Your task to perform on an android device: When is my next meeting? Image 0: 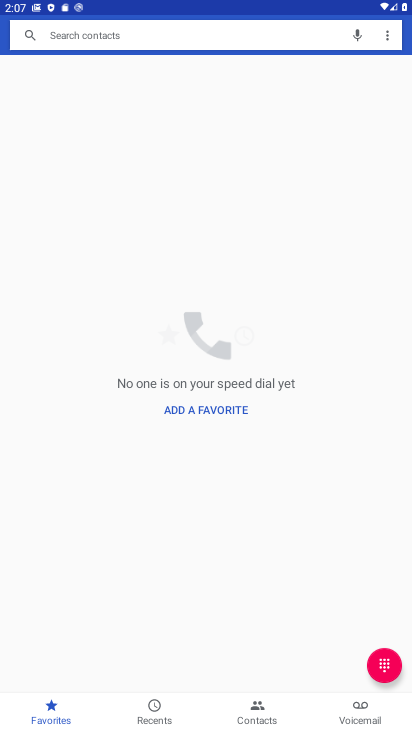
Step 0: press home button
Your task to perform on an android device: When is my next meeting? Image 1: 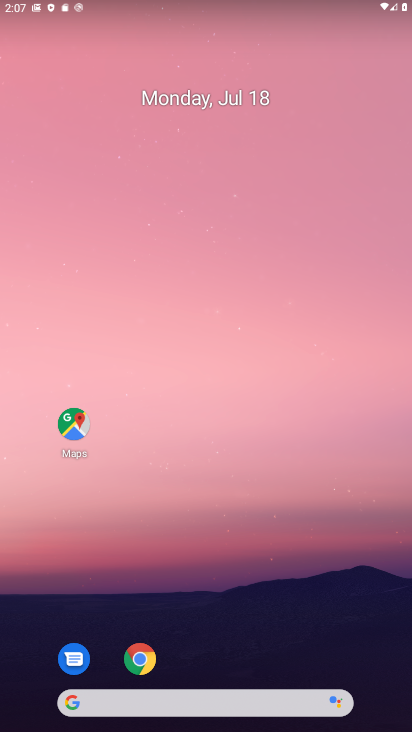
Step 1: drag from (185, 700) to (164, 156)
Your task to perform on an android device: When is my next meeting? Image 2: 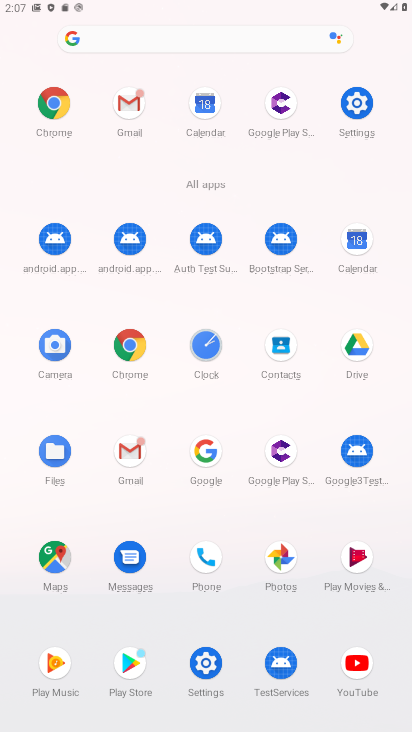
Step 2: click (350, 248)
Your task to perform on an android device: When is my next meeting? Image 3: 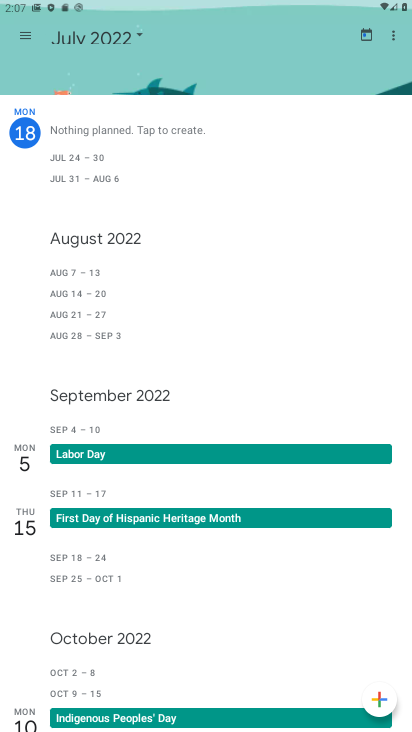
Step 3: click (30, 36)
Your task to perform on an android device: When is my next meeting? Image 4: 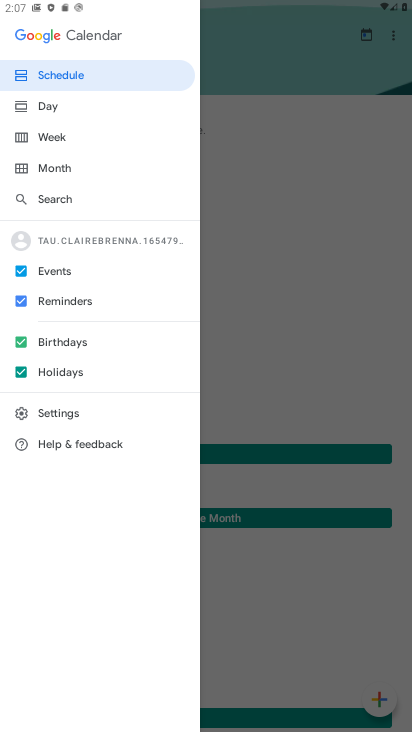
Step 4: click (53, 77)
Your task to perform on an android device: When is my next meeting? Image 5: 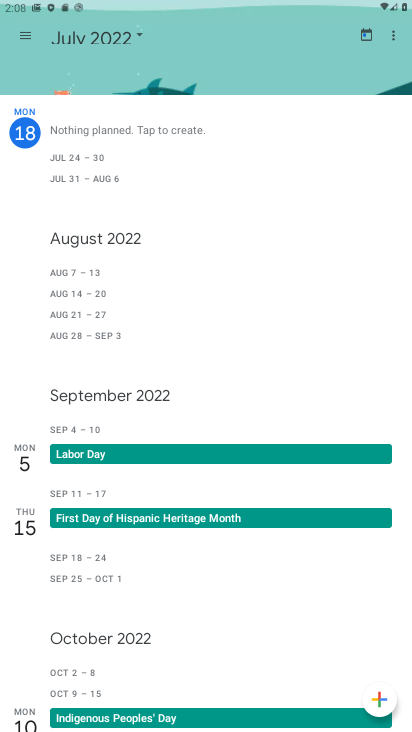
Step 5: task complete